Your task to perform on an android device: See recent photos Image 0: 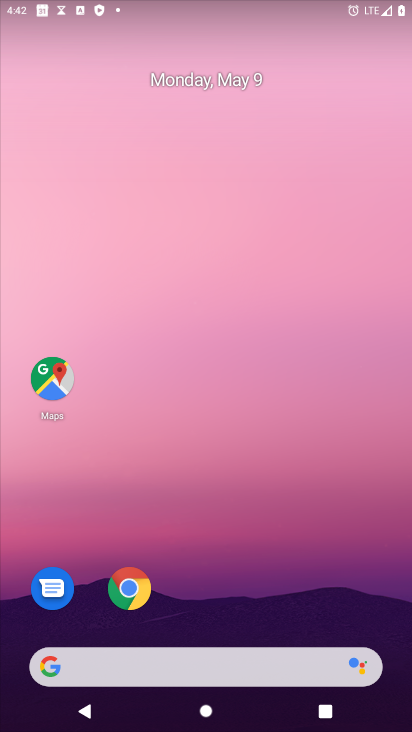
Step 0: drag from (243, 543) to (224, 142)
Your task to perform on an android device: See recent photos Image 1: 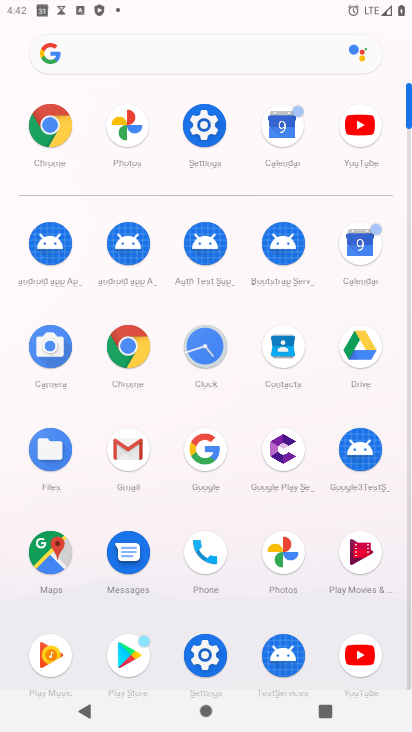
Step 1: click (280, 553)
Your task to perform on an android device: See recent photos Image 2: 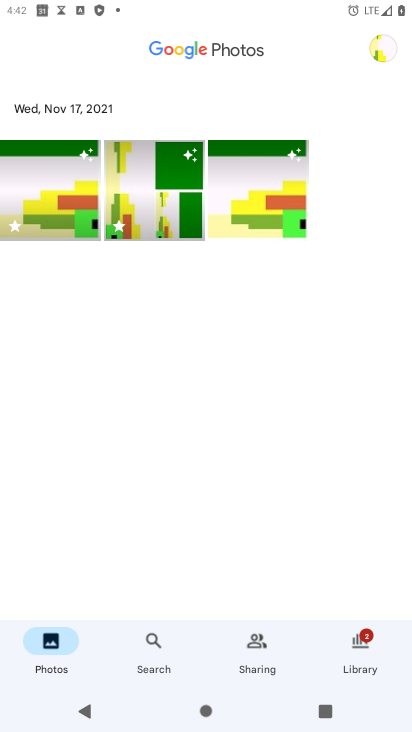
Step 2: click (148, 654)
Your task to perform on an android device: See recent photos Image 3: 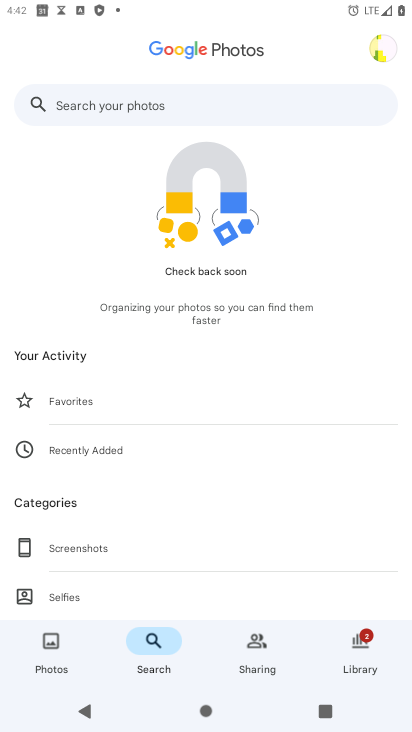
Step 3: click (131, 104)
Your task to perform on an android device: See recent photos Image 4: 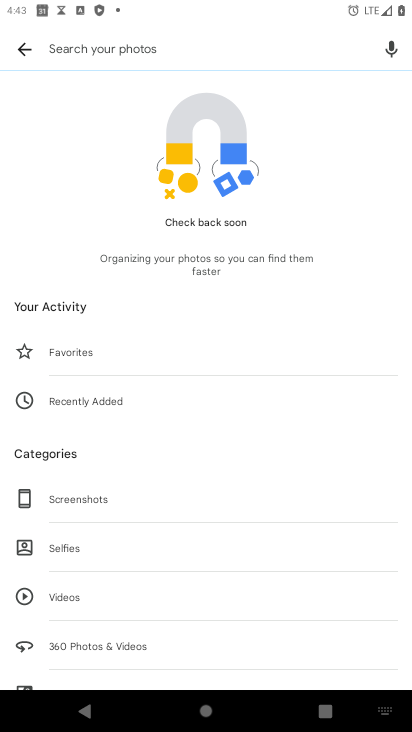
Step 4: click (13, 49)
Your task to perform on an android device: See recent photos Image 5: 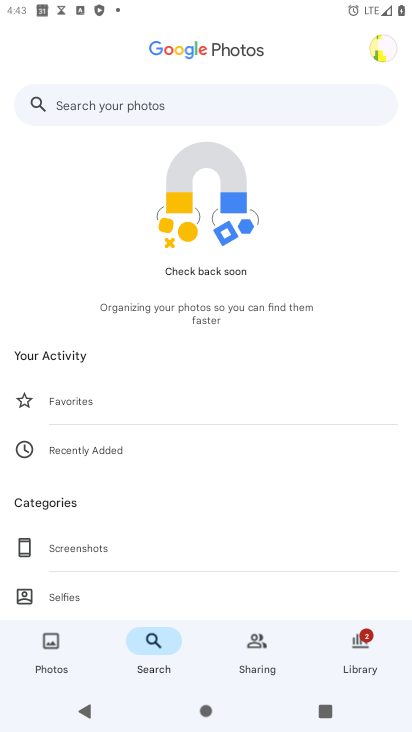
Step 5: click (109, 459)
Your task to perform on an android device: See recent photos Image 6: 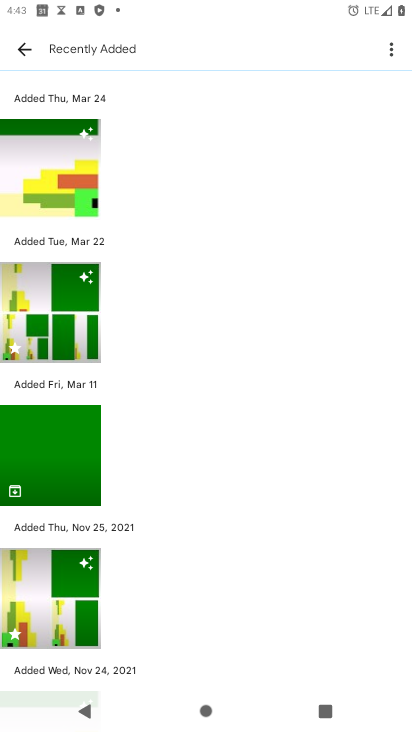
Step 6: task complete